Your task to perform on an android device: Open Chrome and go to settings Image 0: 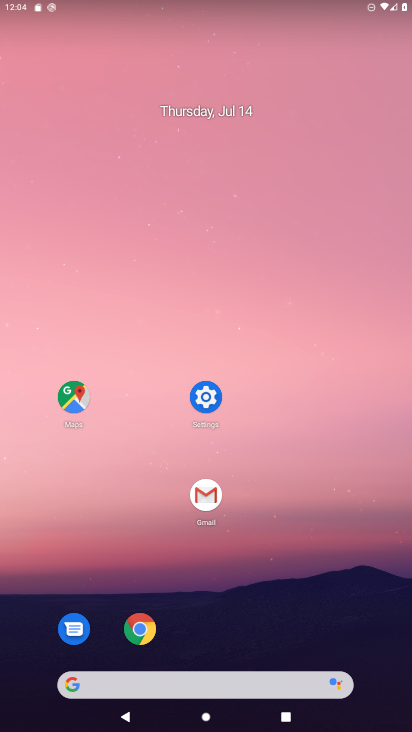
Step 0: click (152, 632)
Your task to perform on an android device: Open Chrome and go to settings Image 1: 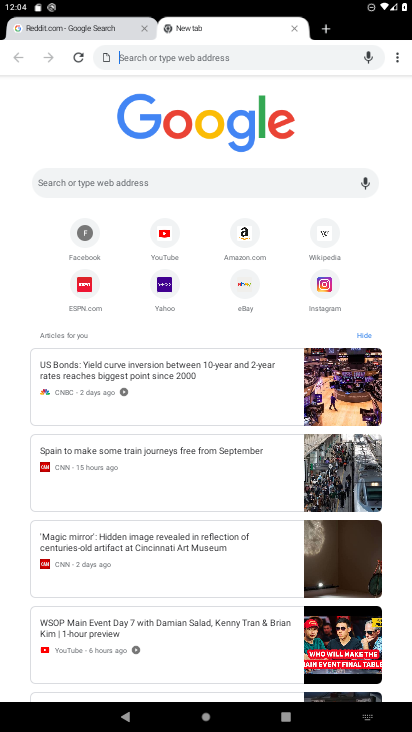
Step 1: task complete